Your task to perform on an android device: Open settings on Google Maps Image 0: 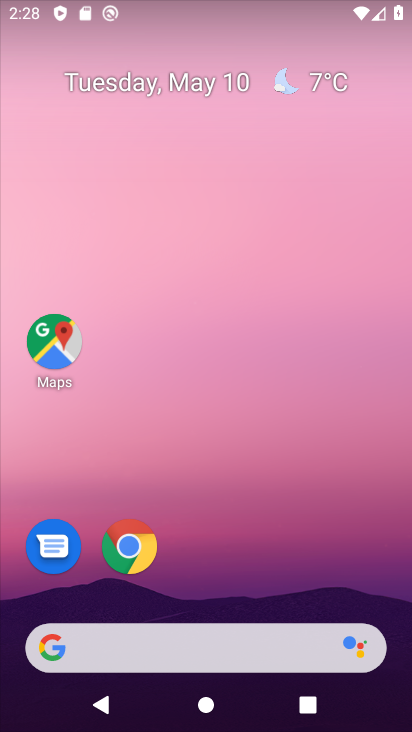
Step 0: click (56, 357)
Your task to perform on an android device: Open settings on Google Maps Image 1: 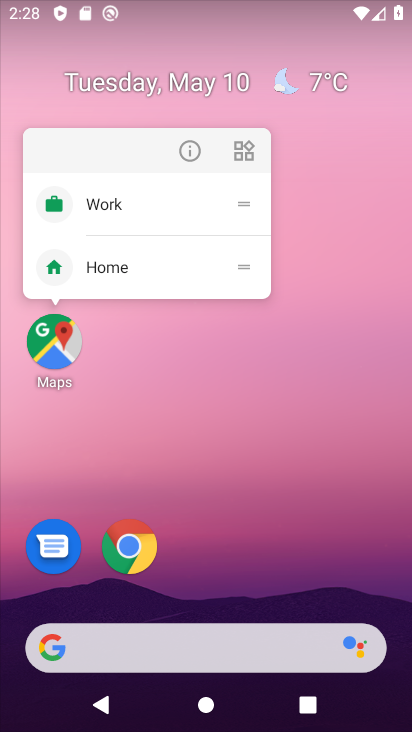
Step 1: click (58, 354)
Your task to perform on an android device: Open settings on Google Maps Image 2: 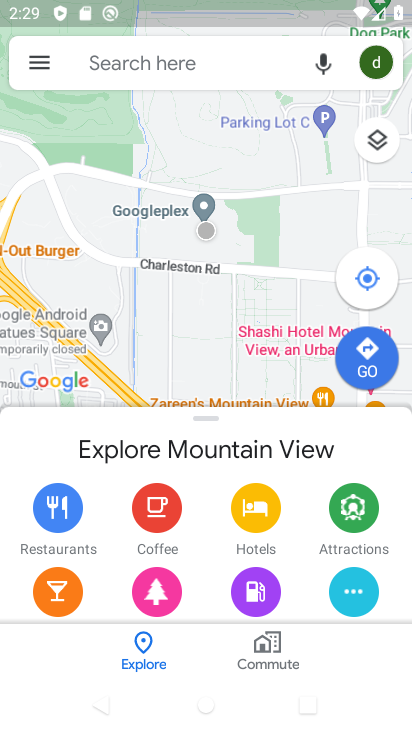
Step 2: click (39, 67)
Your task to perform on an android device: Open settings on Google Maps Image 3: 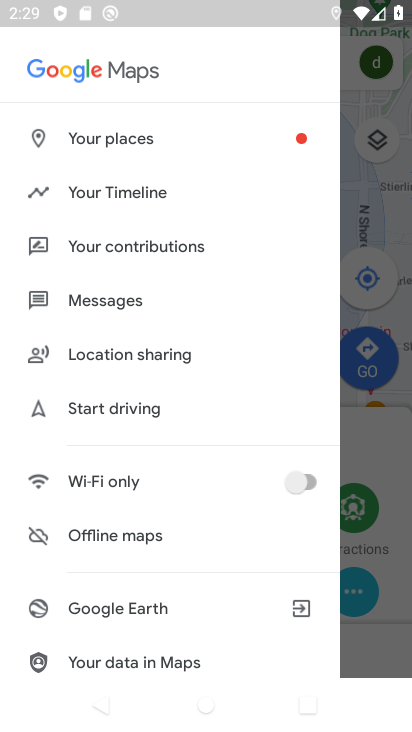
Step 3: drag from (124, 623) to (176, 215)
Your task to perform on an android device: Open settings on Google Maps Image 4: 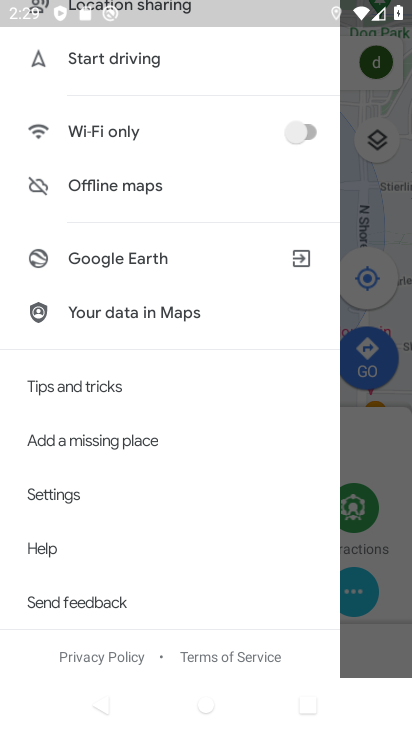
Step 4: click (72, 488)
Your task to perform on an android device: Open settings on Google Maps Image 5: 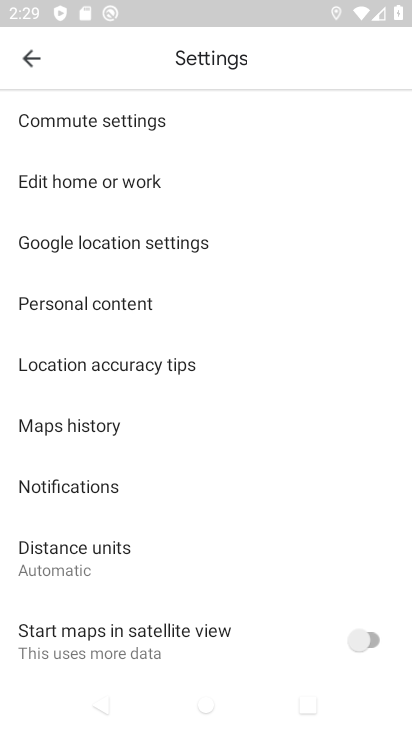
Step 5: task complete